Your task to perform on an android device: set an alarm Image 0: 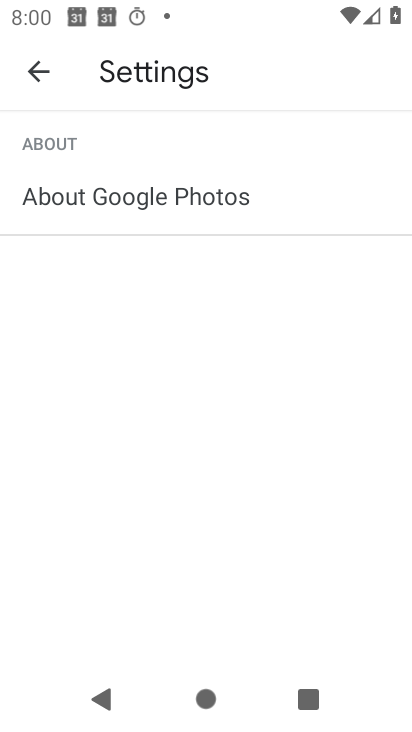
Step 0: press home button
Your task to perform on an android device: set an alarm Image 1: 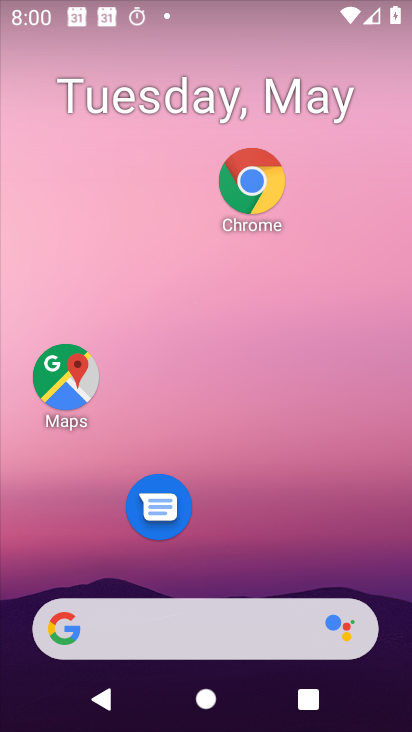
Step 1: drag from (230, 560) to (312, 84)
Your task to perform on an android device: set an alarm Image 2: 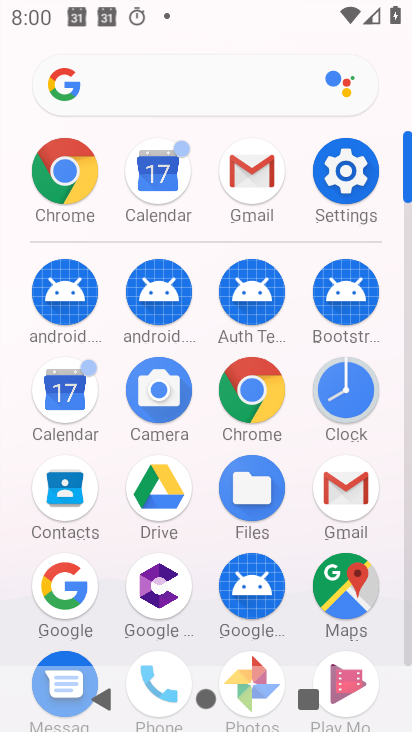
Step 2: click (336, 383)
Your task to perform on an android device: set an alarm Image 3: 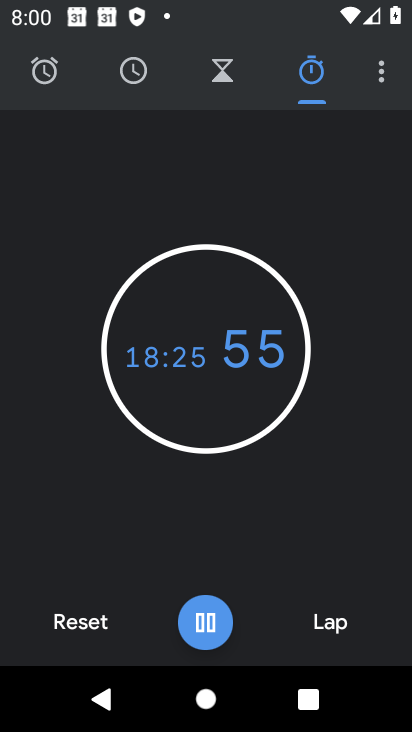
Step 3: click (27, 83)
Your task to perform on an android device: set an alarm Image 4: 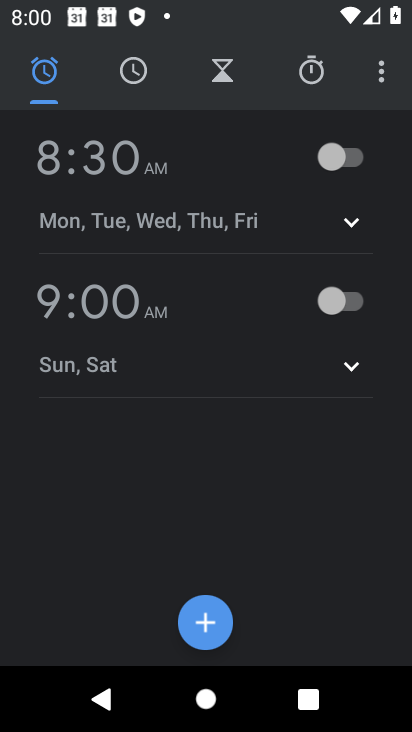
Step 4: click (203, 605)
Your task to perform on an android device: set an alarm Image 5: 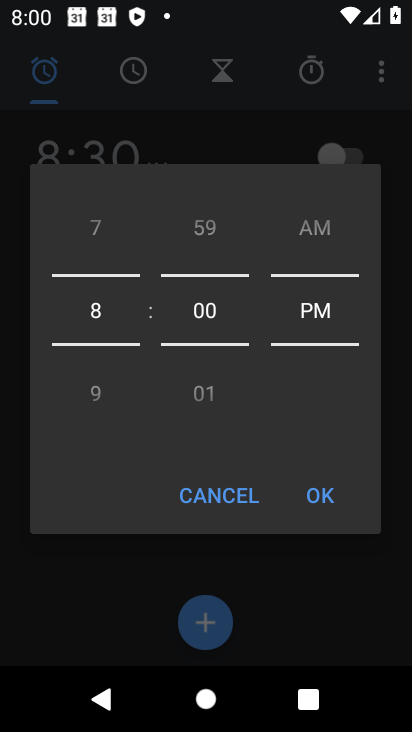
Step 5: click (320, 497)
Your task to perform on an android device: set an alarm Image 6: 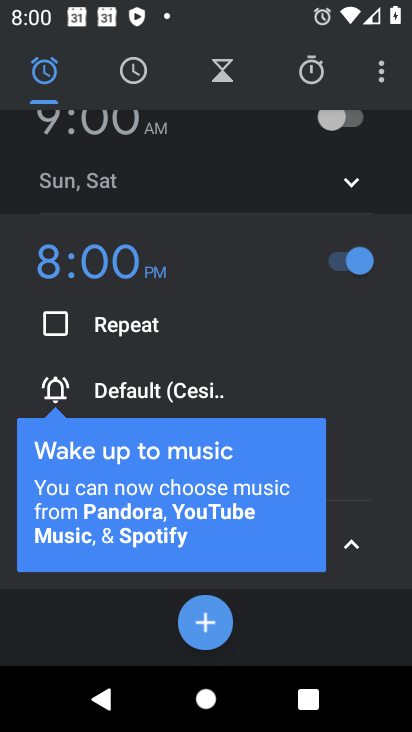
Step 6: click (345, 549)
Your task to perform on an android device: set an alarm Image 7: 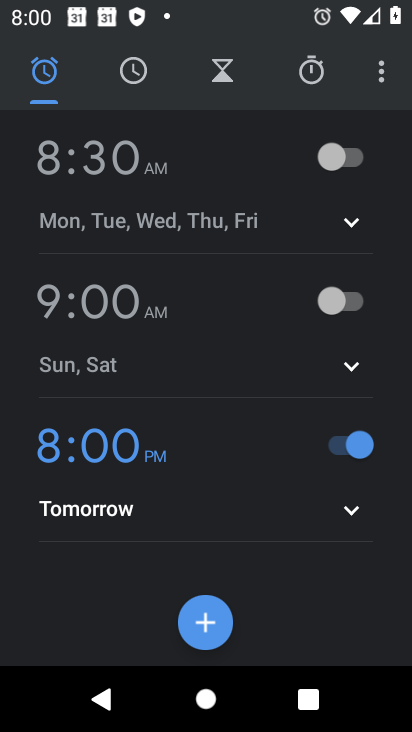
Step 7: task complete